Your task to perform on an android device: toggle improve location accuracy Image 0: 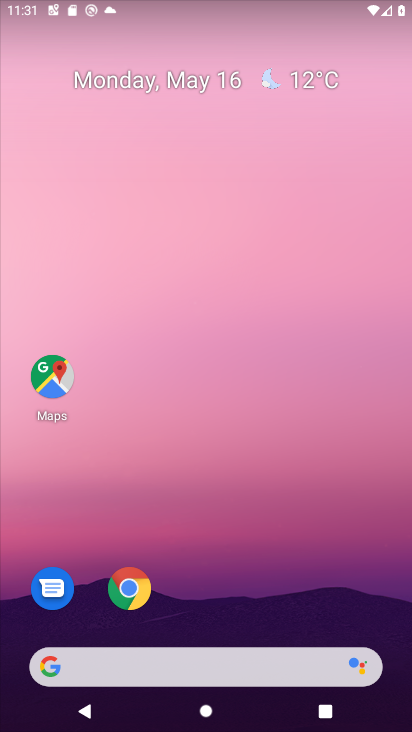
Step 0: drag from (212, 617) to (222, 88)
Your task to perform on an android device: toggle improve location accuracy Image 1: 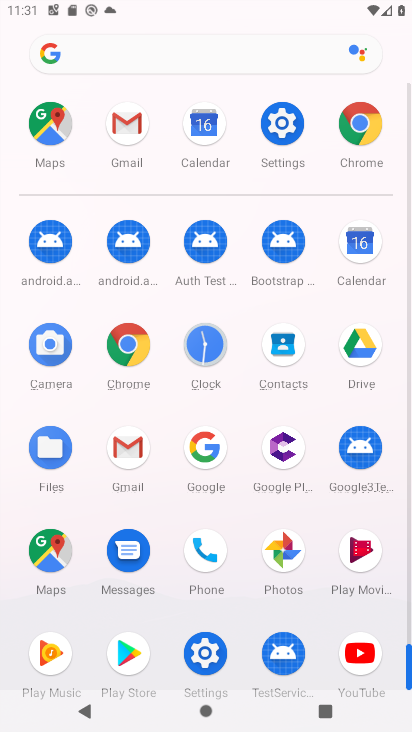
Step 1: click (279, 120)
Your task to perform on an android device: toggle improve location accuracy Image 2: 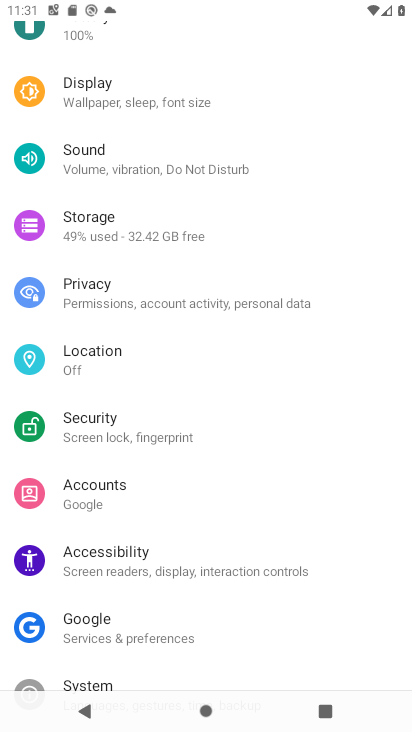
Step 2: click (127, 353)
Your task to perform on an android device: toggle improve location accuracy Image 3: 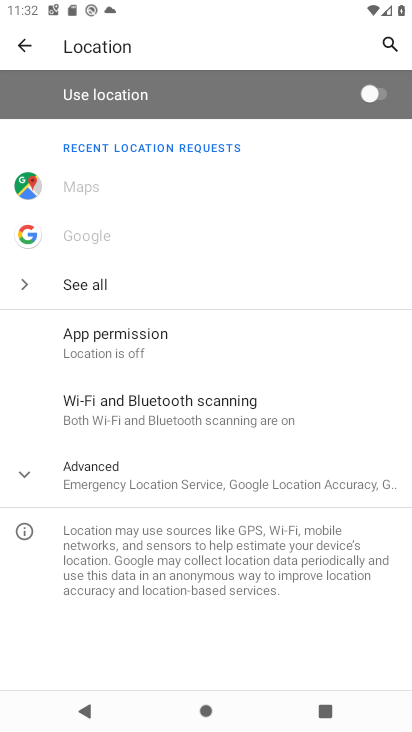
Step 3: click (19, 471)
Your task to perform on an android device: toggle improve location accuracy Image 4: 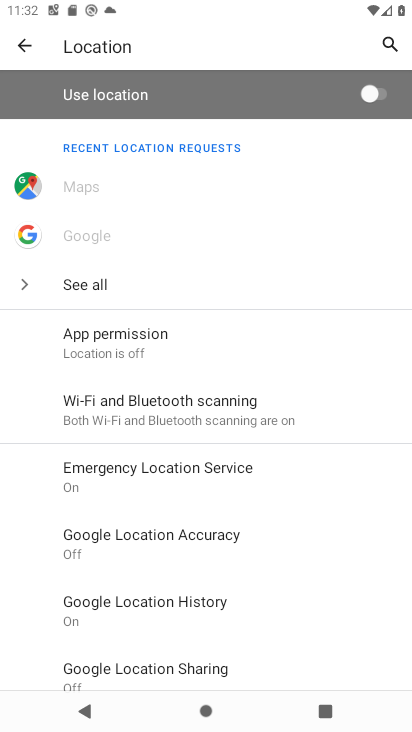
Step 4: click (157, 545)
Your task to perform on an android device: toggle improve location accuracy Image 5: 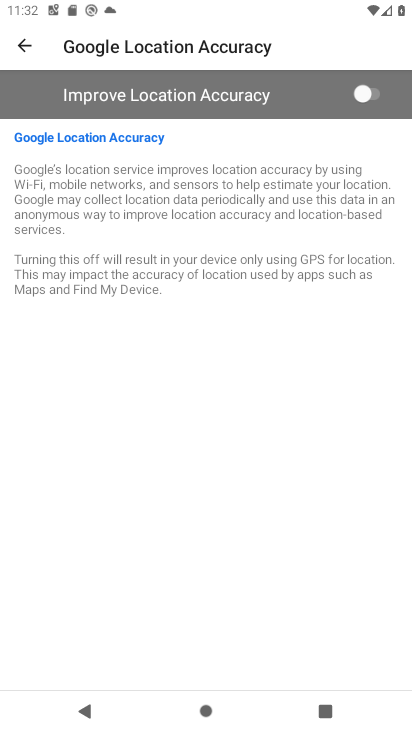
Step 5: click (364, 94)
Your task to perform on an android device: toggle improve location accuracy Image 6: 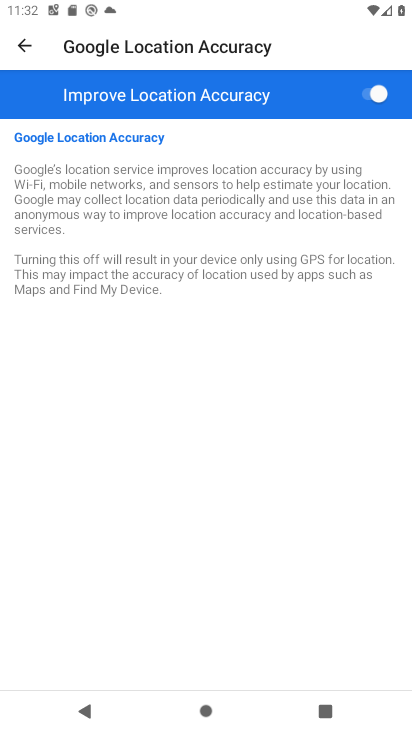
Step 6: task complete